Your task to perform on an android device: turn on bluetooth scan Image 0: 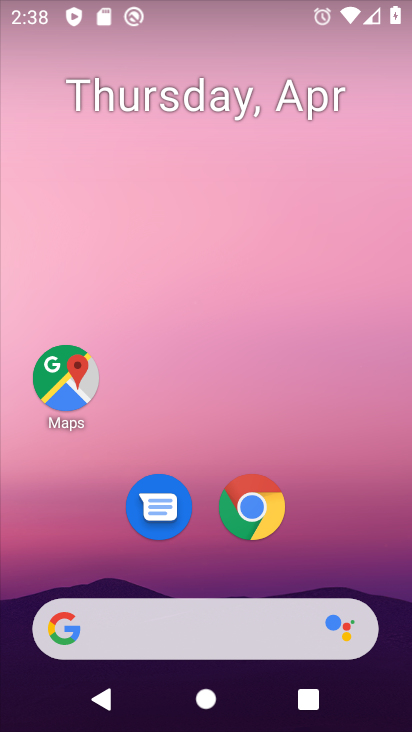
Step 0: drag from (371, 562) to (386, 151)
Your task to perform on an android device: turn on bluetooth scan Image 1: 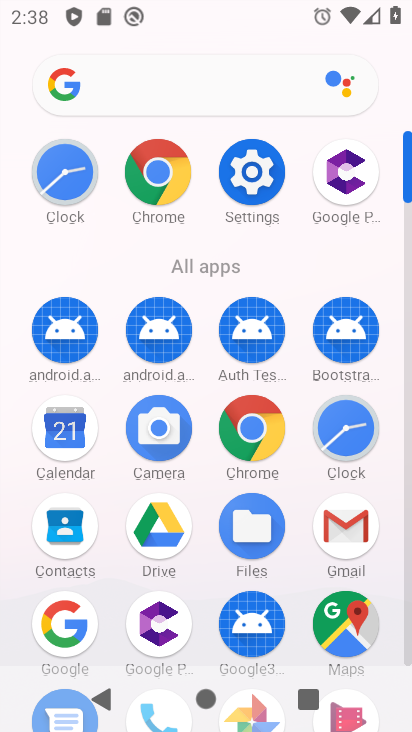
Step 1: click (244, 182)
Your task to perform on an android device: turn on bluetooth scan Image 2: 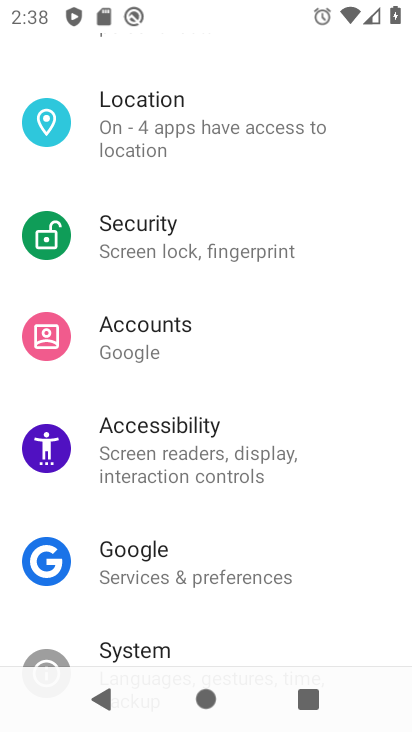
Step 2: drag from (335, 608) to (335, 295)
Your task to perform on an android device: turn on bluetooth scan Image 3: 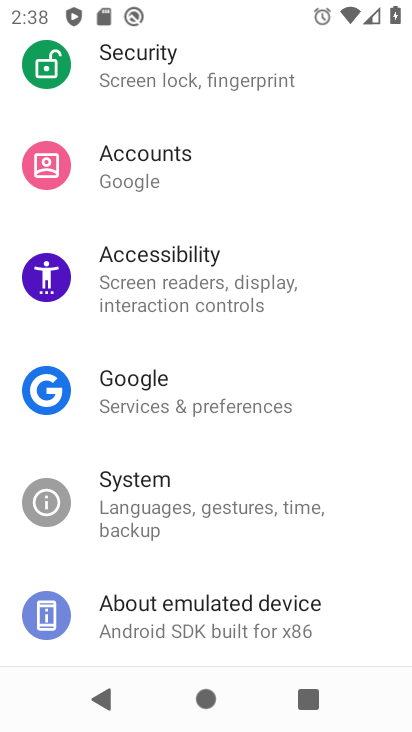
Step 3: drag from (320, 144) to (317, 588)
Your task to perform on an android device: turn on bluetooth scan Image 4: 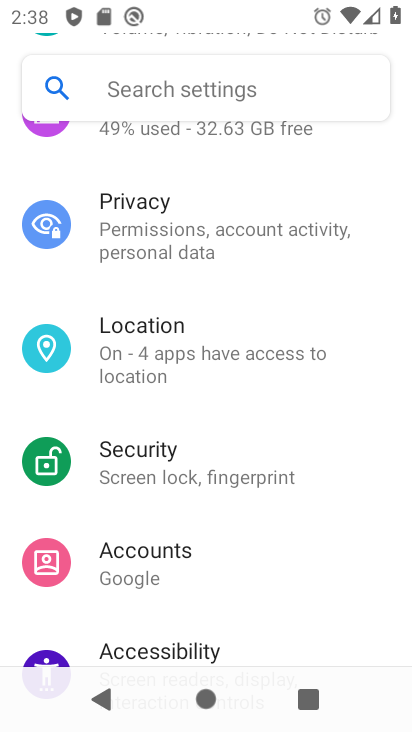
Step 4: click (223, 356)
Your task to perform on an android device: turn on bluetooth scan Image 5: 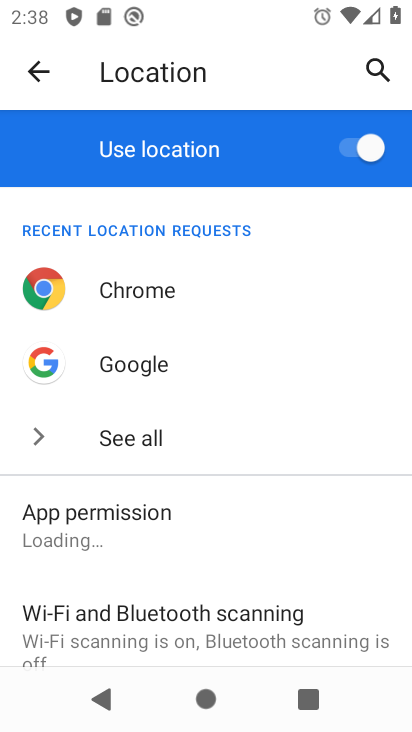
Step 5: drag from (313, 544) to (335, 340)
Your task to perform on an android device: turn on bluetooth scan Image 6: 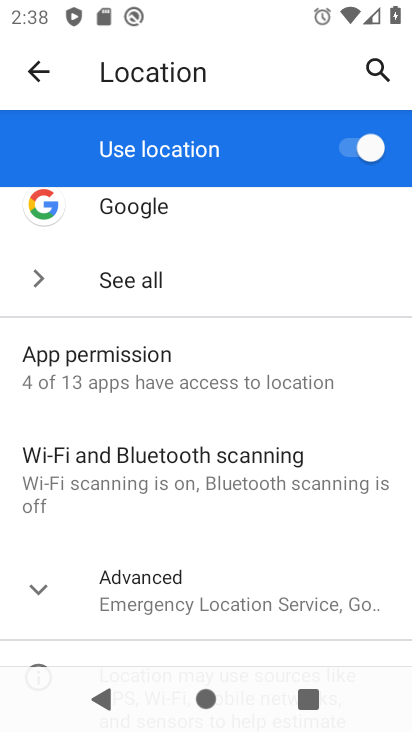
Step 6: click (233, 479)
Your task to perform on an android device: turn on bluetooth scan Image 7: 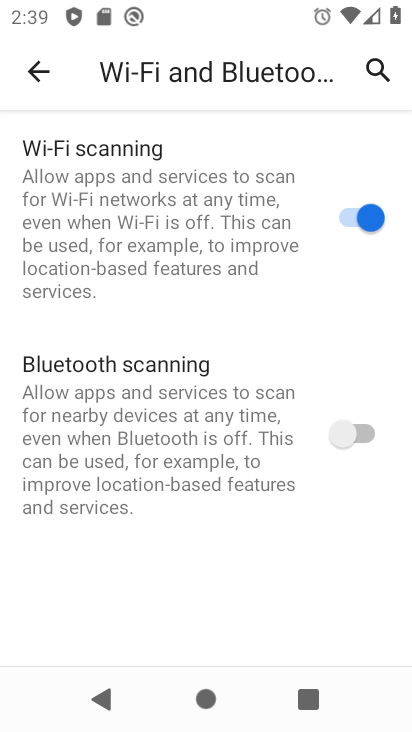
Step 7: click (366, 438)
Your task to perform on an android device: turn on bluetooth scan Image 8: 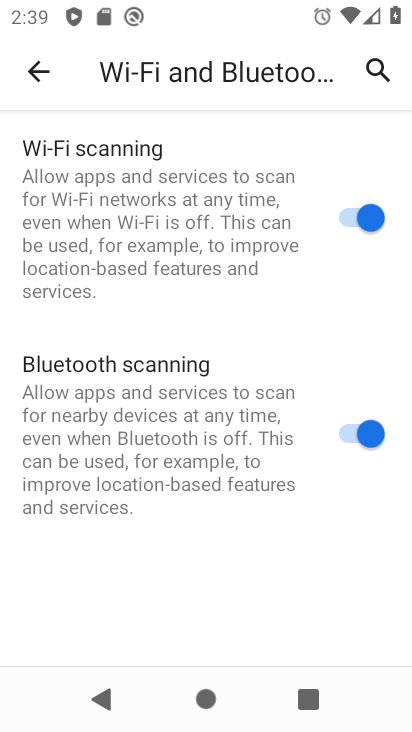
Step 8: task complete